Your task to perform on an android device: Open Google Image 0: 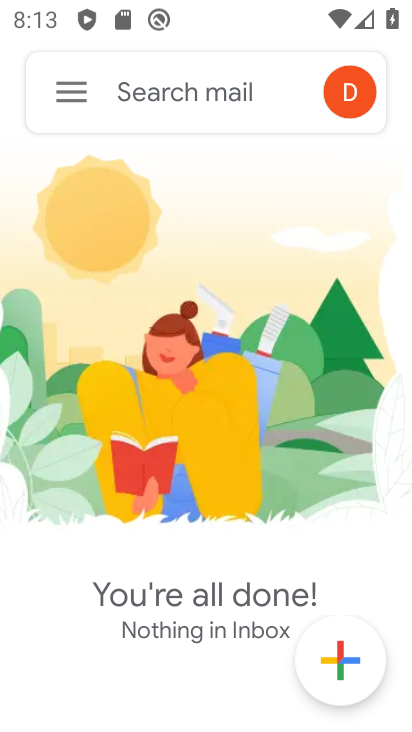
Step 0: press back button
Your task to perform on an android device: Open Google Image 1: 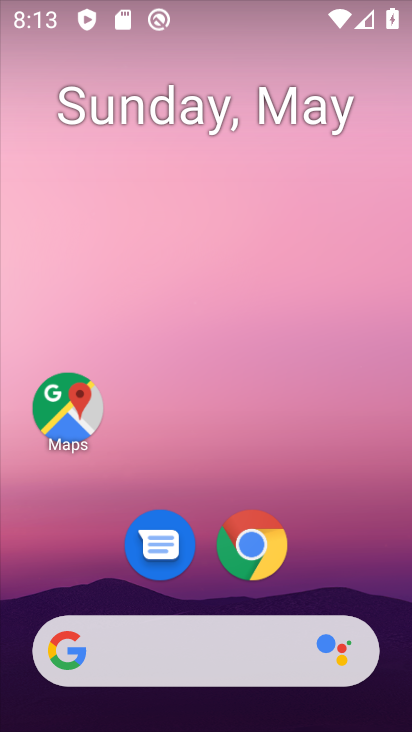
Step 1: drag from (380, 570) to (288, 127)
Your task to perform on an android device: Open Google Image 2: 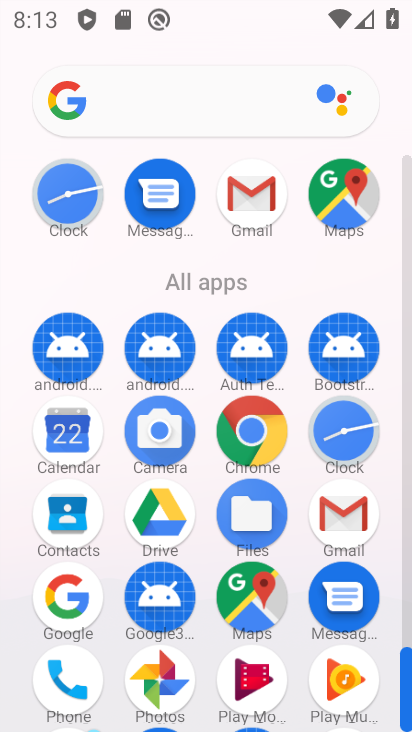
Step 2: click (76, 587)
Your task to perform on an android device: Open Google Image 3: 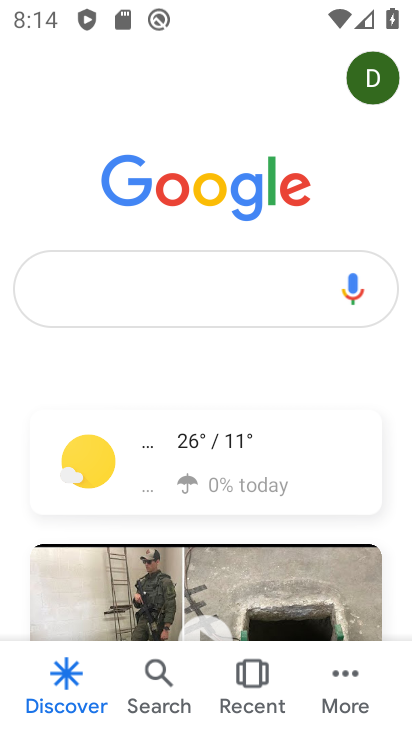
Step 3: task complete